Your task to perform on an android device: toggle javascript in the chrome app Image 0: 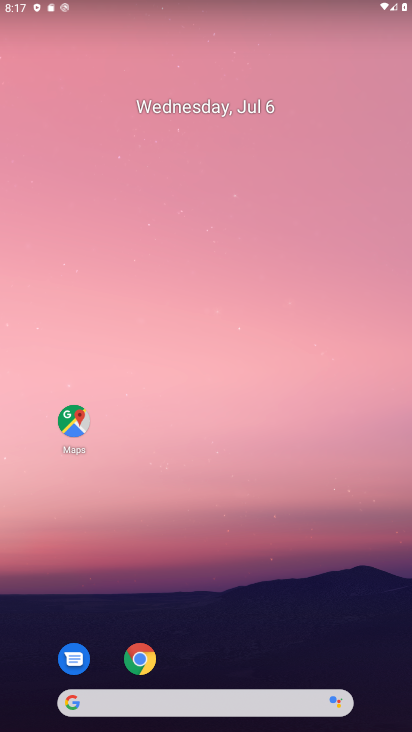
Step 0: drag from (326, 661) to (266, 224)
Your task to perform on an android device: toggle javascript in the chrome app Image 1: 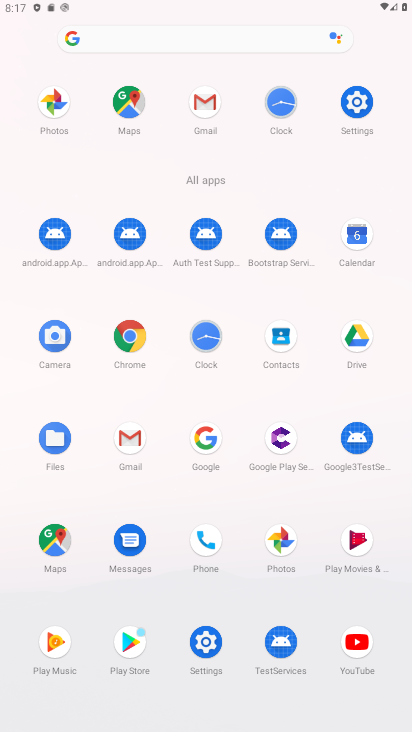
Step 1: click (140, 347)
Your task to perform on an android device: toggle javascript in the chrome app Image 2: 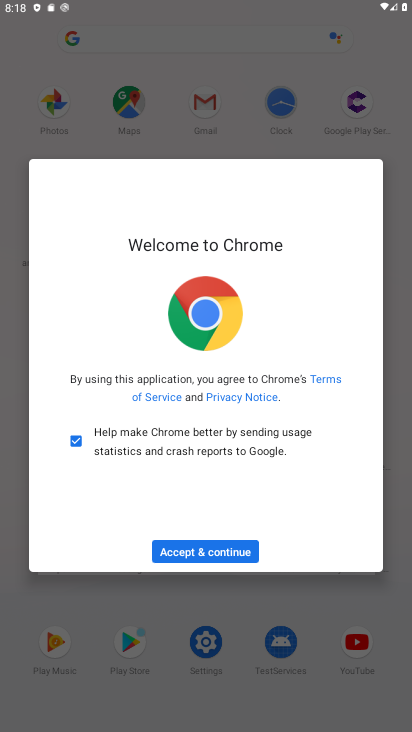
Step 2: click (215, 550)
Your task to perform on an android device: toggle javascript in the chrome app Image 3: 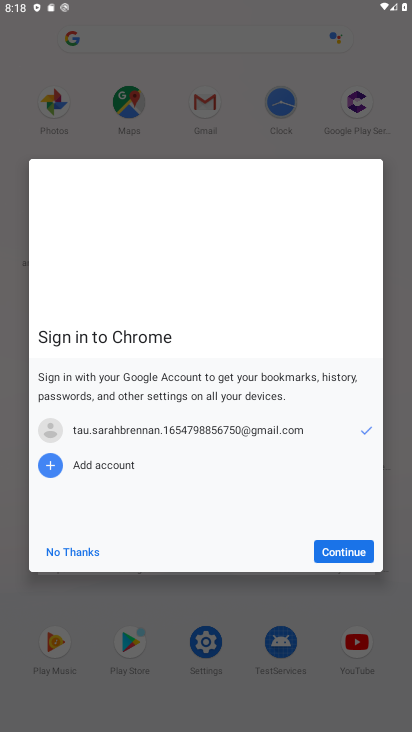
Step 3: click (331, 553)
Your task to perform on an android device: toggle javascript in the chrome app Image 4: 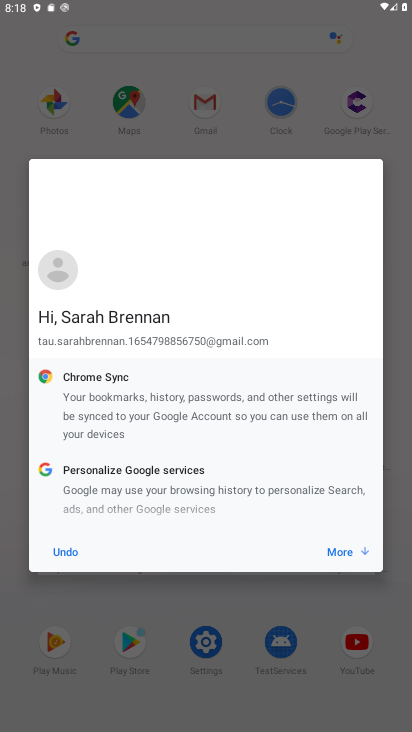
Step 4: click (331, 553)
Your task to perform on an android device: toggle javascript in the chrome app Image 5: 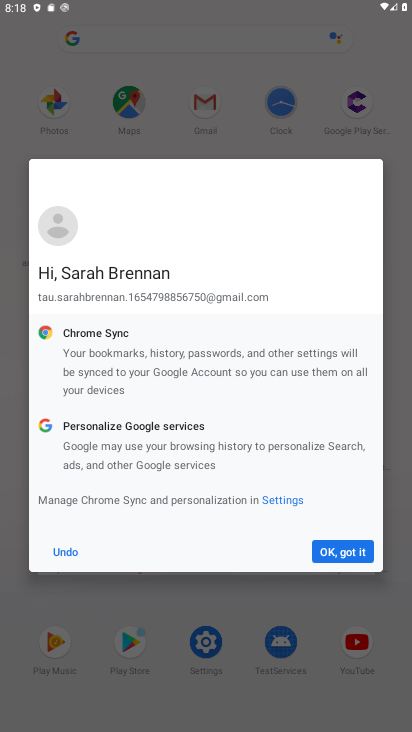
Step 5: click (331, 553)
Your task to perform on an android device: toggle javascript in the chrome app Image 6: 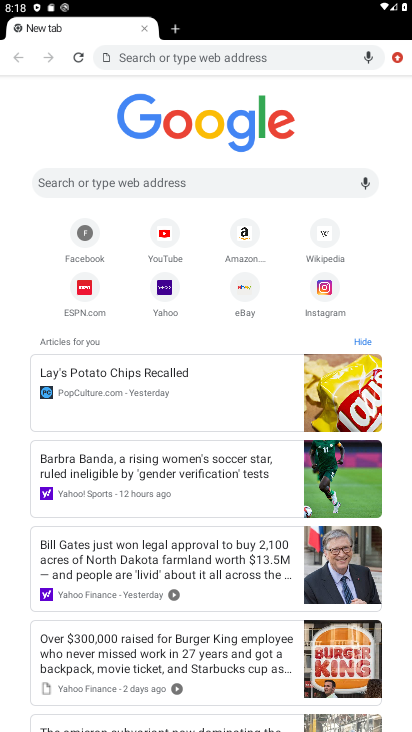
Step 6: click (400, 57)
Your task to perform on an android device: toggle javascript in the chrome app Image 7: 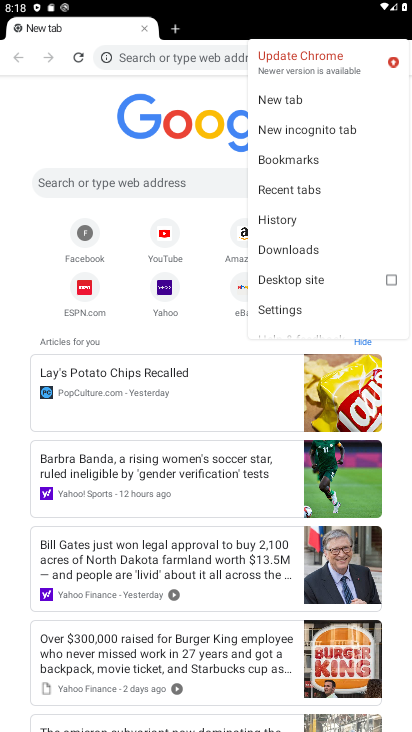
Step 7: click (296, 310)
Your task to perform on an android device: toggle javascript in the chrome app Image 8: 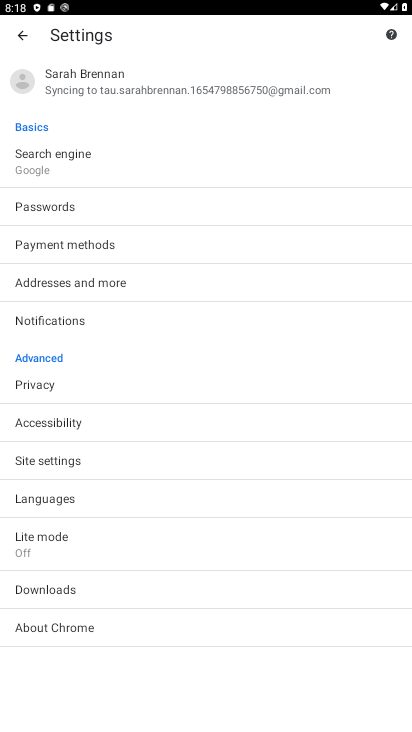
Step 8: click (81, 455)
Your task to perform on an android device: toggle javascript in the chrome app Image 9: 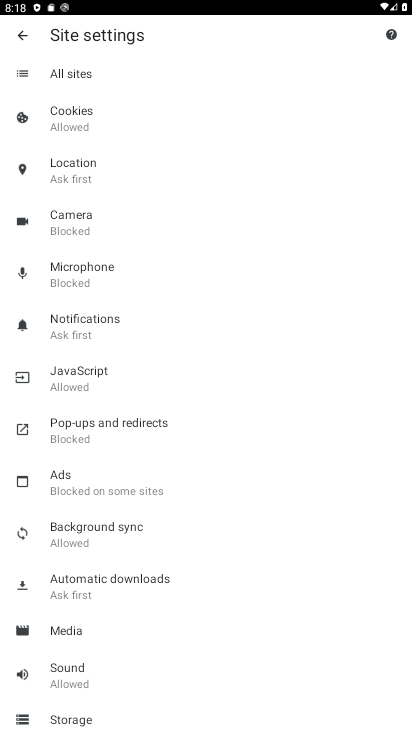
Step 9: click (84, 384)
Your task to perform on an android device: toggle javascript in the chrome app Image 10: 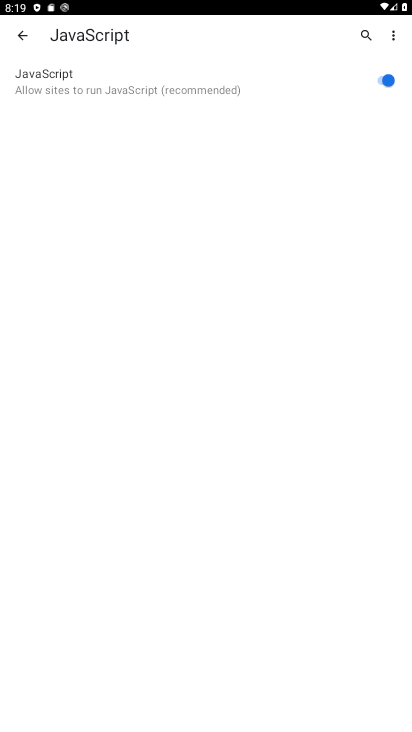
Step 10: click (382, 83)
Your task to perform on an android device: toggle javascript in the chrome app Image 11: 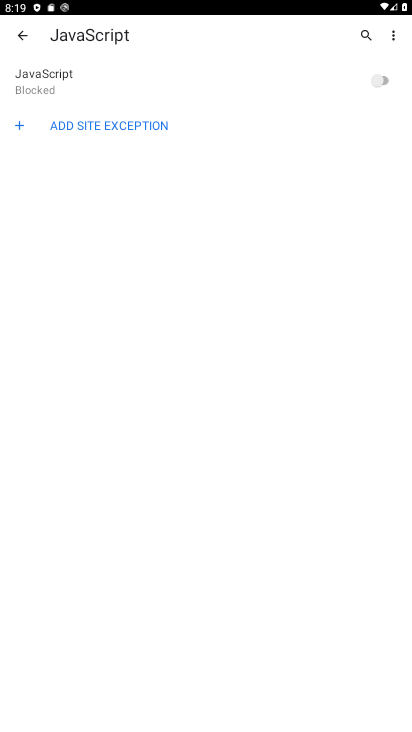
Step 11: click (142, 88)
Your task to perform on an android device: toggle javascript in the chrome app Image 12: 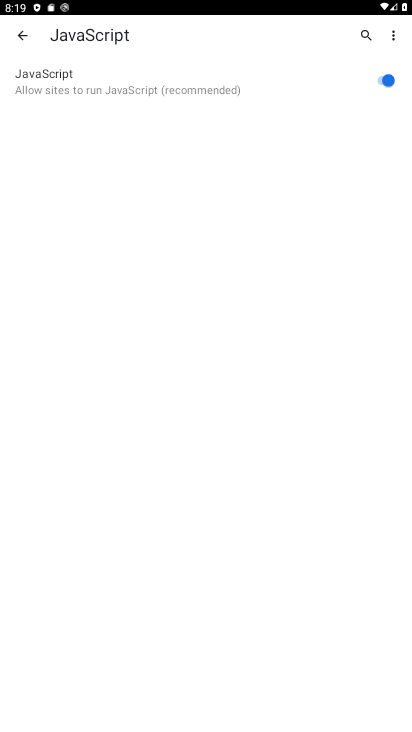
Step 12: task complete